Your task to perform on an android device: clear all cookies in the chrome app Image 0: 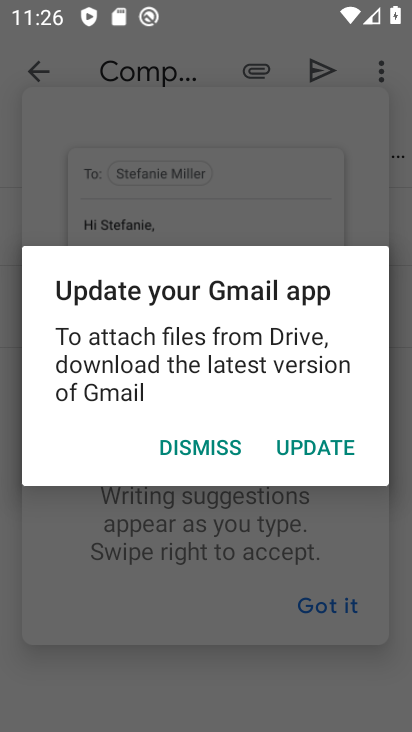
Step 0: press home button
Your task to perform on an android device: clear all cookies in the chrome app Image 1: 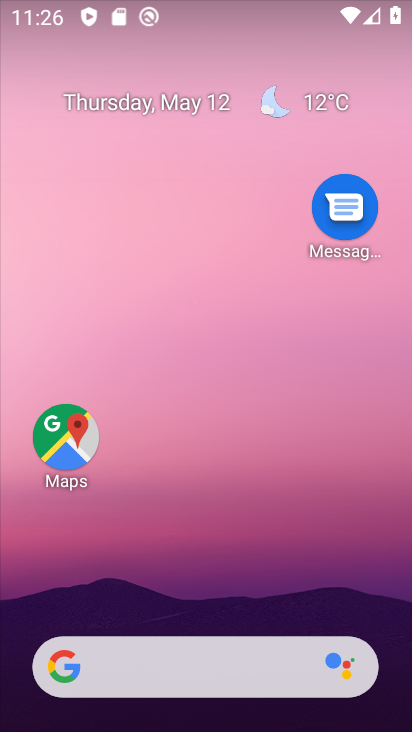
Step 1: drag from (364, 525) to (336, 3)
Your task to perform on an android device: clear all cookies in the chrome app Image 2: 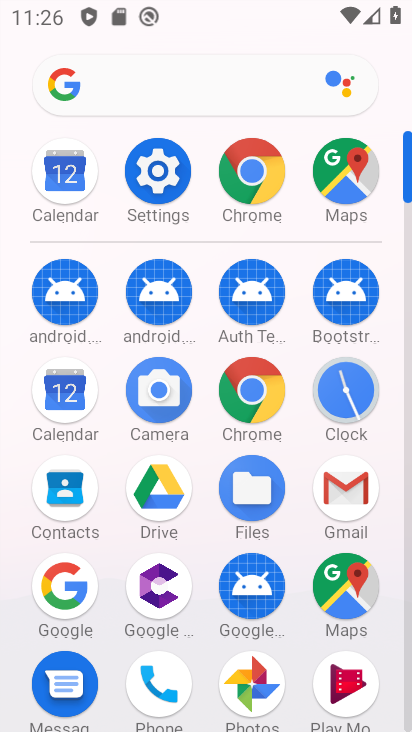
Step 2: click (248, 168)
Your task to perform on an android device: clear all cookies in the chrome app Image 3: 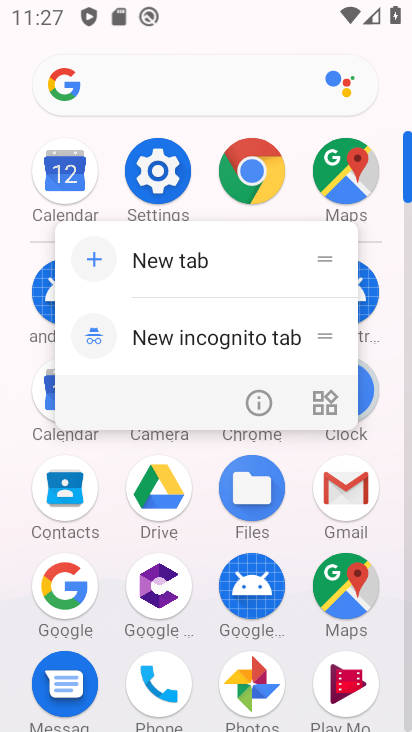
Step 3: click (246, 176)
Your task to perform on an android device: clear all cookies in the chrome app Image 4: 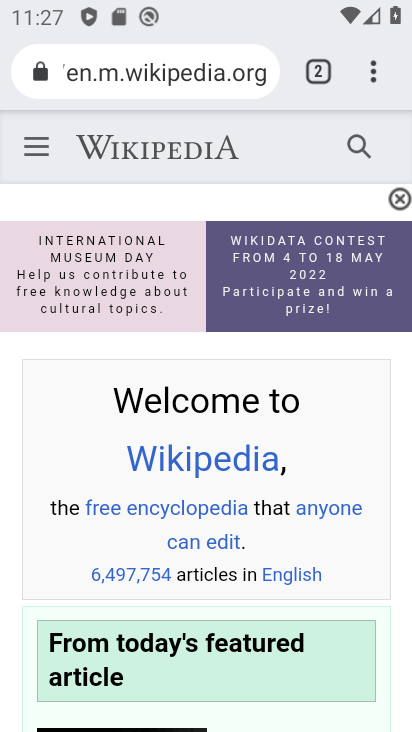
Step 4: drag from (374, 83) to (223, 580)
Your task to perform on an android device: clear all cookies in the chrome app Image 5: 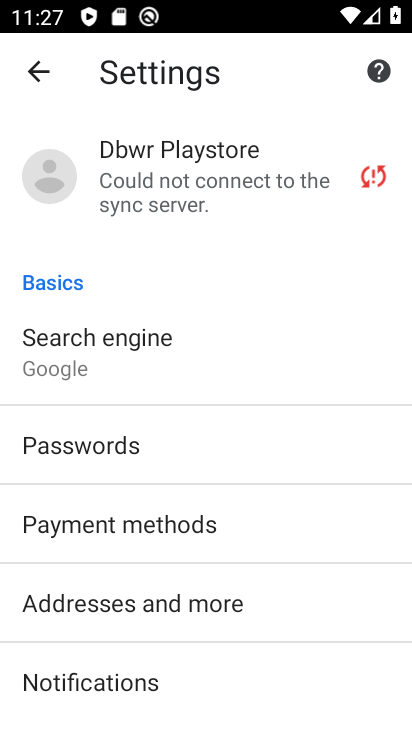
Step 5: drag from (203, 462) to (244, 53)
Your task to perform on an android device: clear all cookies in the chrome app Image 6: 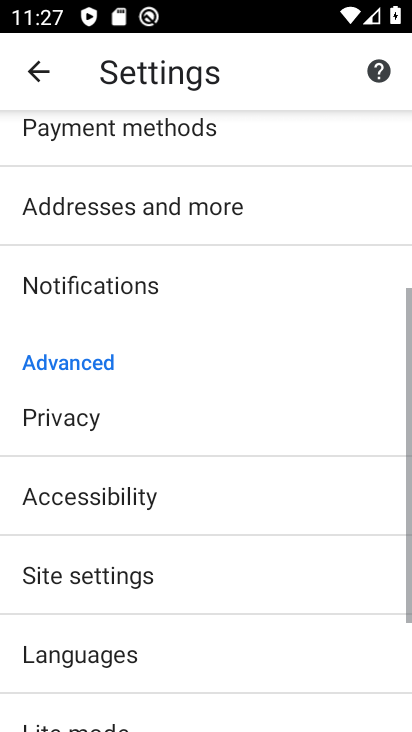
Step 6: drag from (240, 557) to (288, 295)
Your task to perform on an android device: clear all cookies in the chrome app Image 7: 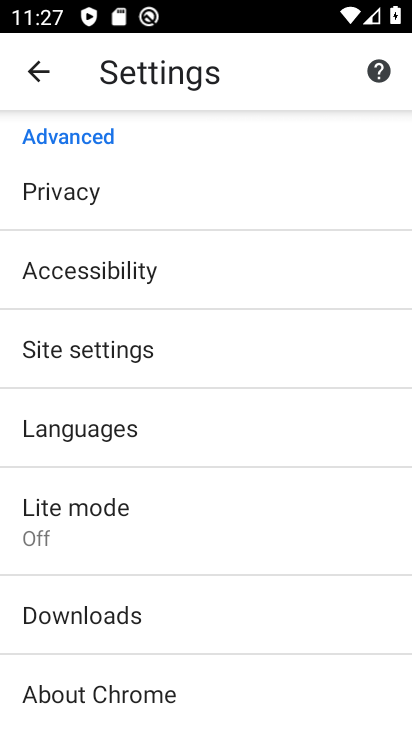
Step 7: click (58, 215)
Your task to perform on an android device: clear all cookies in the chrome app Image 8: 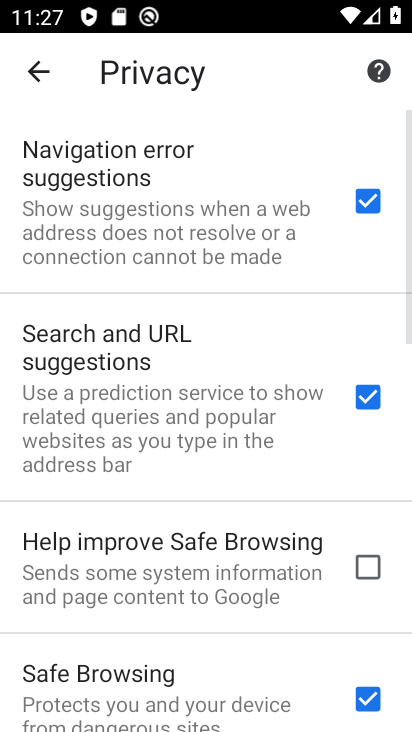
Step 8: drag from (220, 316) to (236, 189)
Your task to perform on an android device: clear all cookies in the chrome app Image 9: 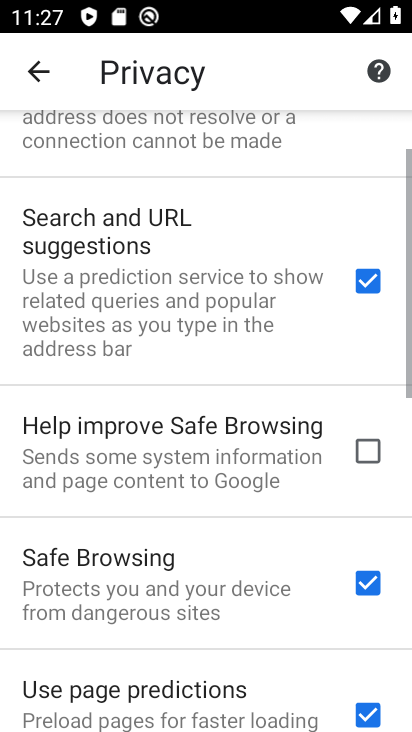
Step 9: drag from (70, 465) to (101, 388)
Your task to perform on an android device: clear all cookies in the chrome app Image 10: 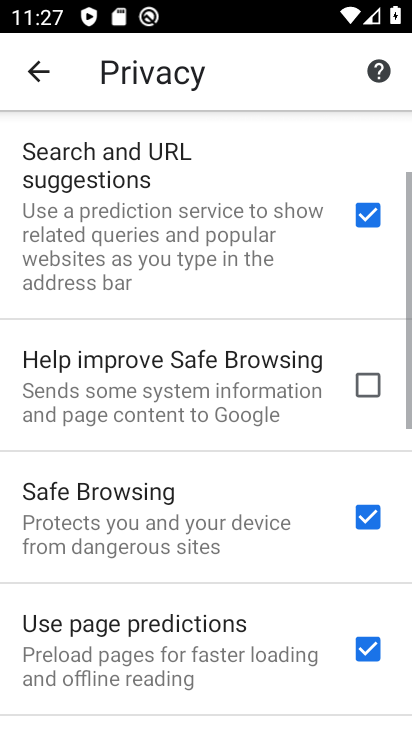
Step 10: drag from (253, 302) to (263, 243)
Your task to perform on an android device: clear all cookies in the chrome app Image 11: 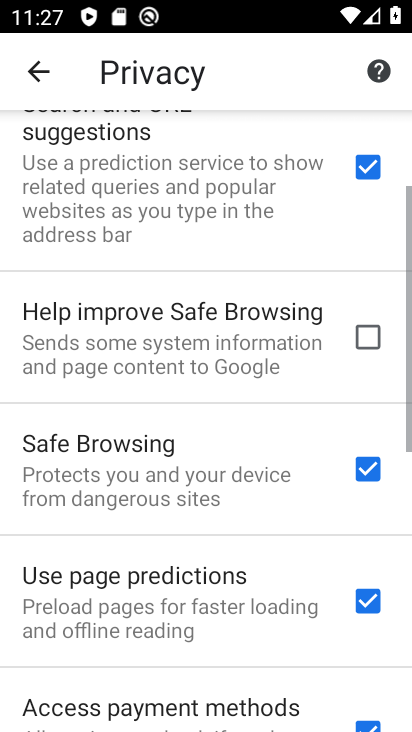
Step 11: drag from (287, 476) to (282, 281)
Your task to perform on an android device: clear all cookies in the chrome app Image 12: 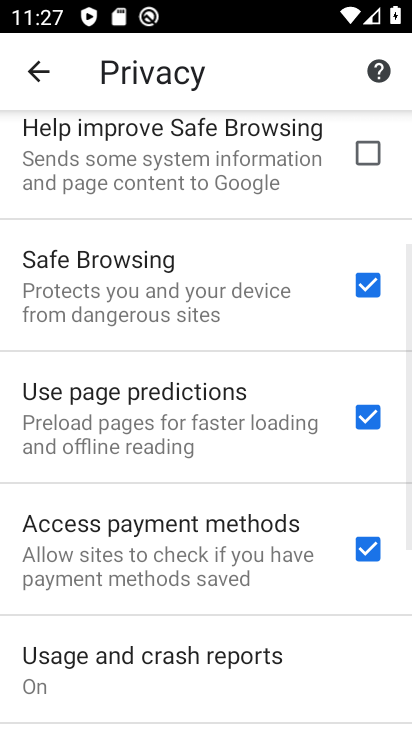
Step 12: drag from (281, 510) to (304, 293)
Your task to perform on an android device: clear all cookies in the chrome app Image 13: 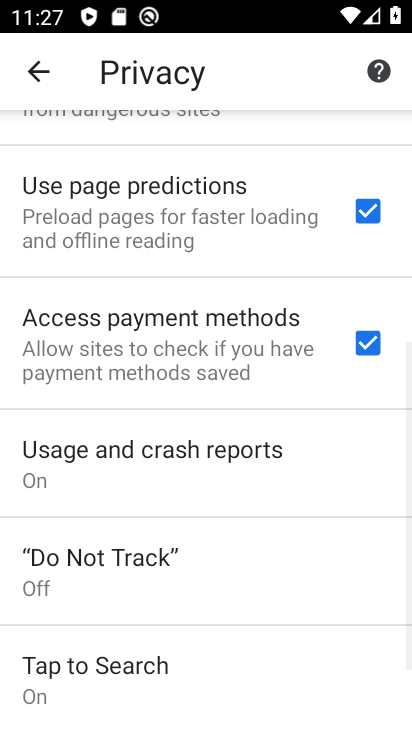
Step 13: drag from (310, 600) to (351, 317)
Your task to perform on an android device: clear all cookies in the chrome app Image 14: 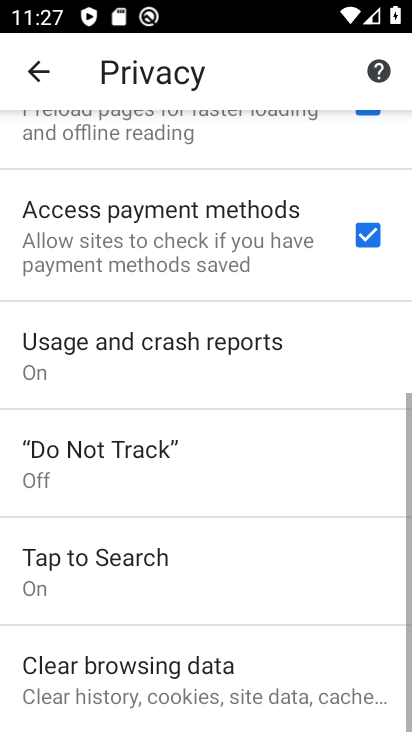
Step 14: drag from (323, 730) to (311, 498)
Your task to perform on an android device: clear all cookies in the chrome app Image 15: 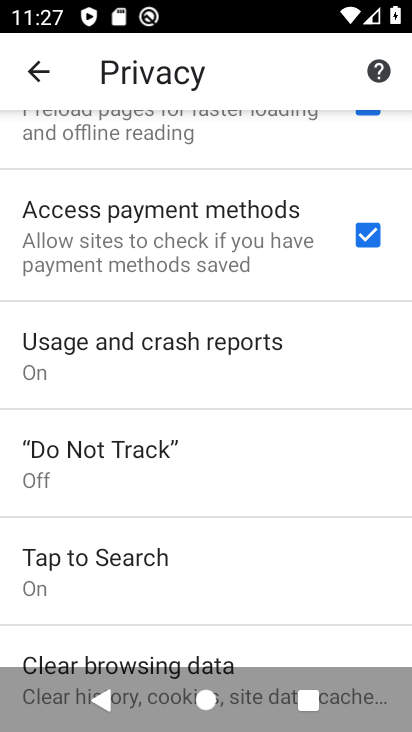
Step 15: click (230, 646)
Your task to perform on an android device: clear all cookies in the chrome app Image 16: 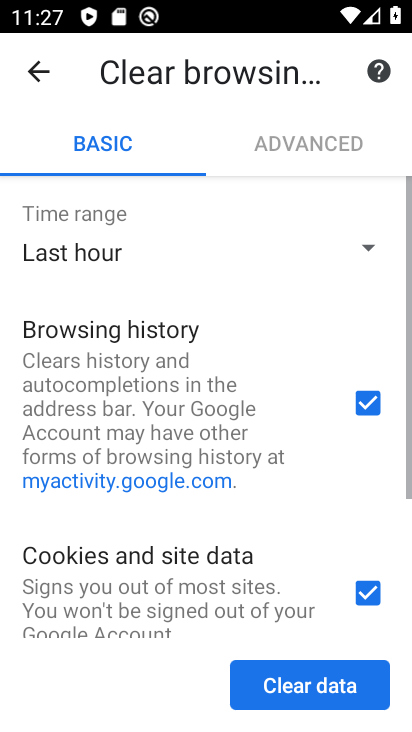
Step 16: click (327, 693)
Your task to perform on an android device: clear all cookies in the chrome app Image 17: 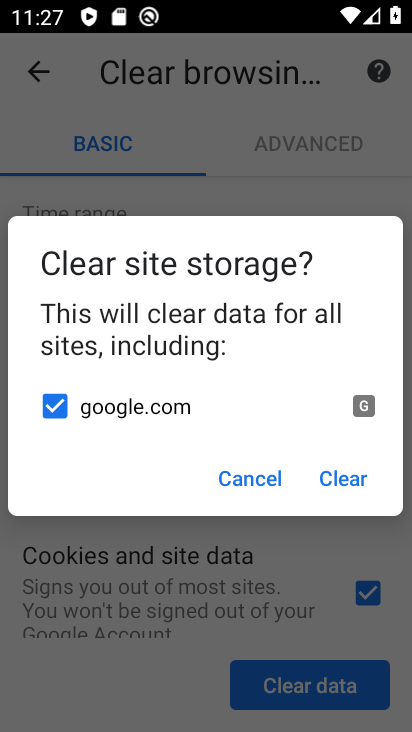
Step 17: click (345, 475)
Your task to perform on an android device: clear all cookies in the chrome app Image 18: 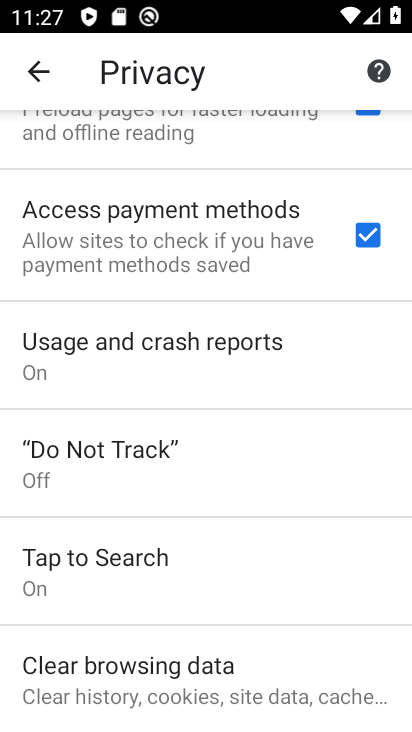
Step 18: task complete